Your task to perform on an android device: Do I have any events this weekend? Image 0: 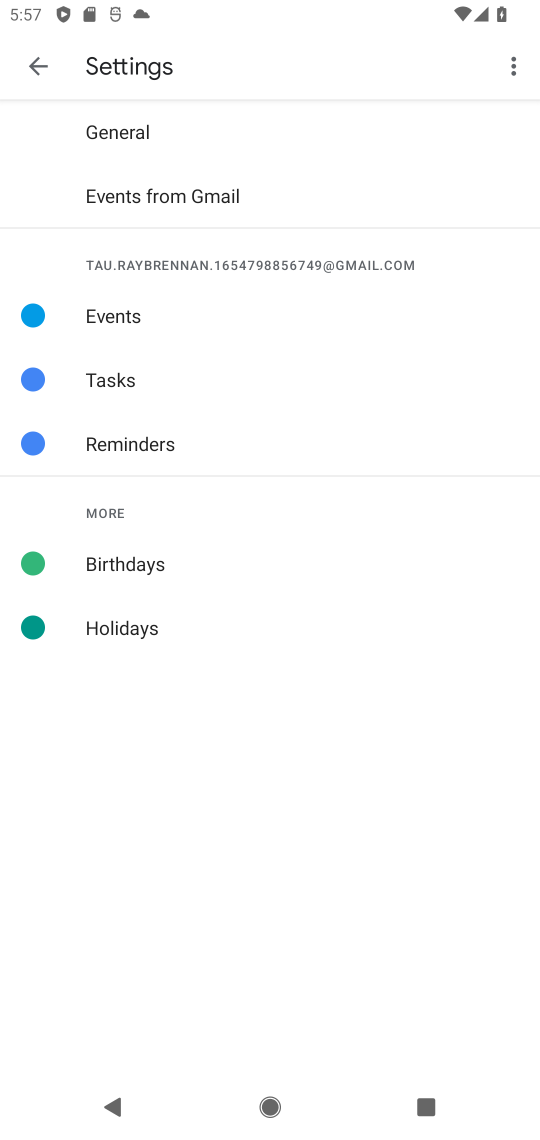
Step 0: press home button
Your task to perform on an android device: Do I have any events this weekend? Image 1: 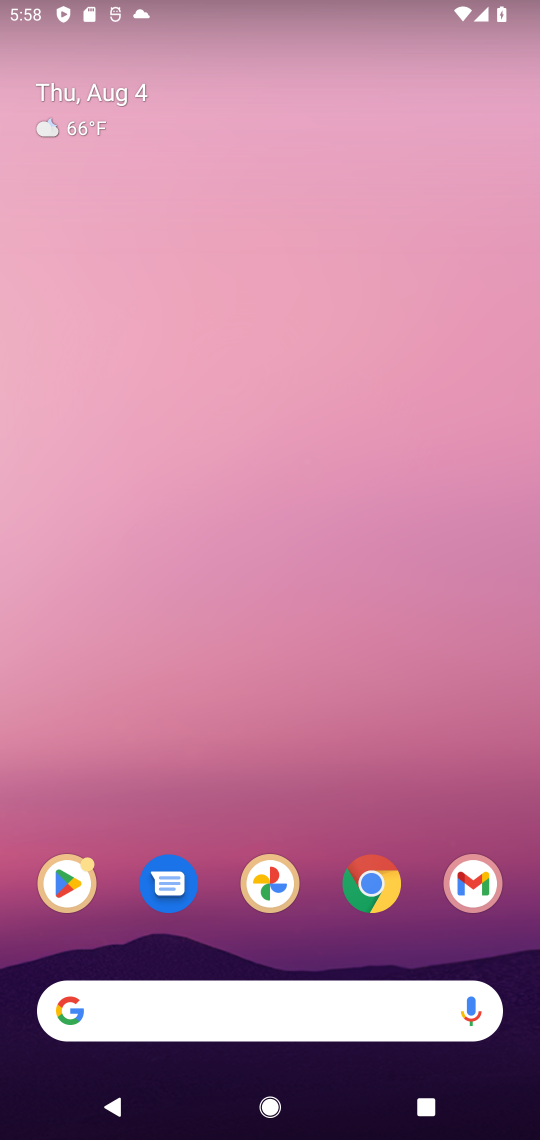
Step 1: drag from (299, 781) to (292, 512)
Your task to perform on an android device: Do I have any events this weekend? Image 2: 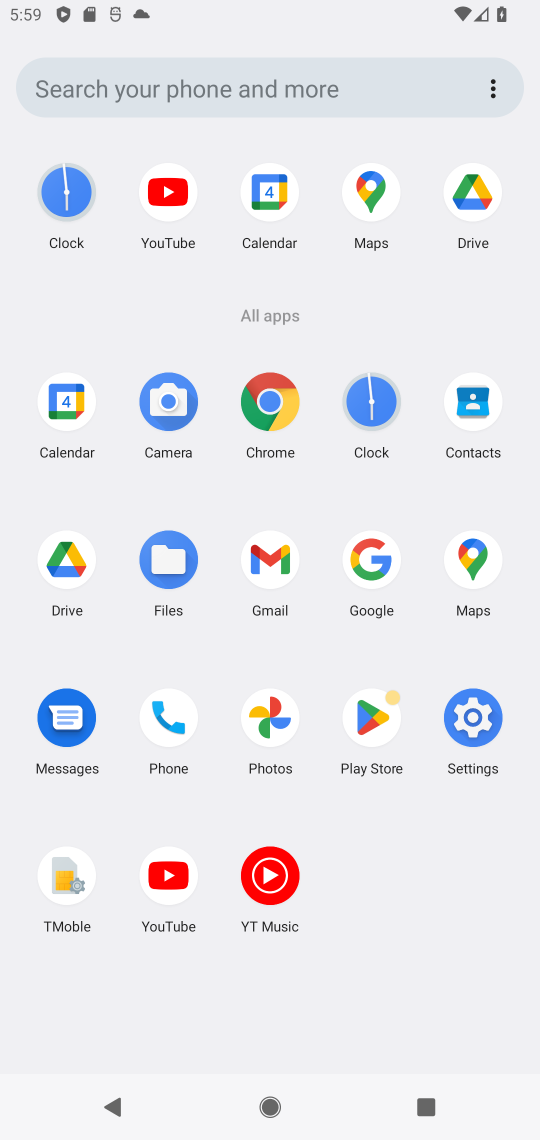
Step 2: click (67, 414)
Your task to perform on an android device: Do I have any events this weekend? Image 3: 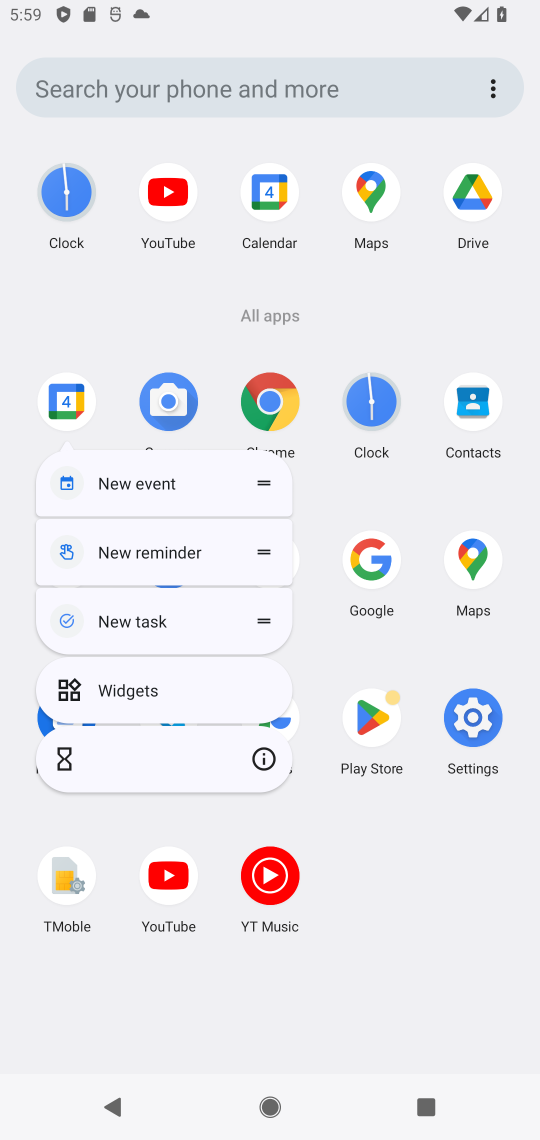
Step 3: click (67, 414)
Your task to perform on an android device: Do I have any events this weekend? Image 4: 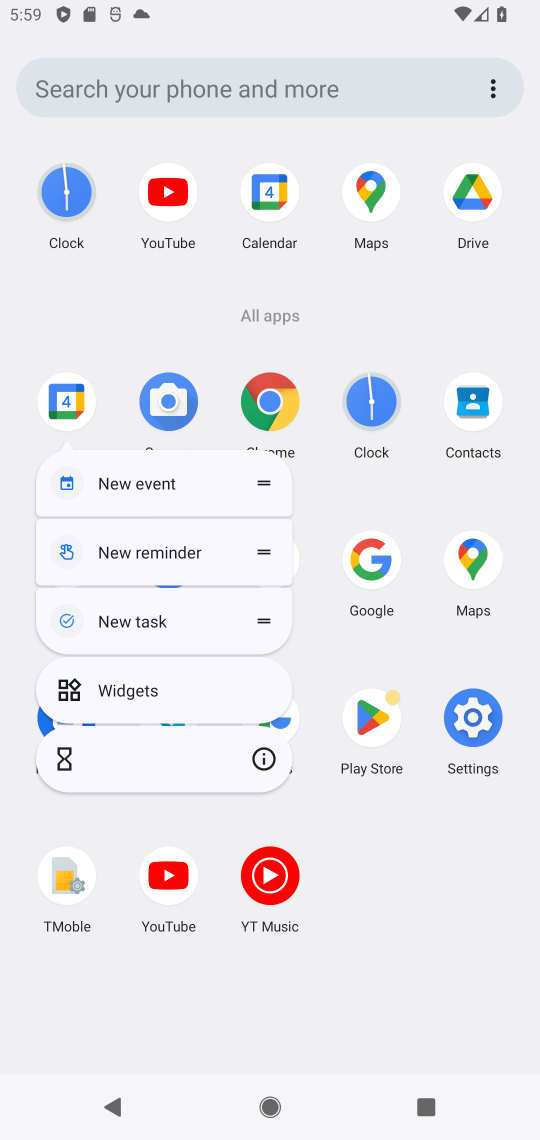
Step 4: click (67, 414)
Your task to perform on an android device: Do I have any events this weekend? Image 5: 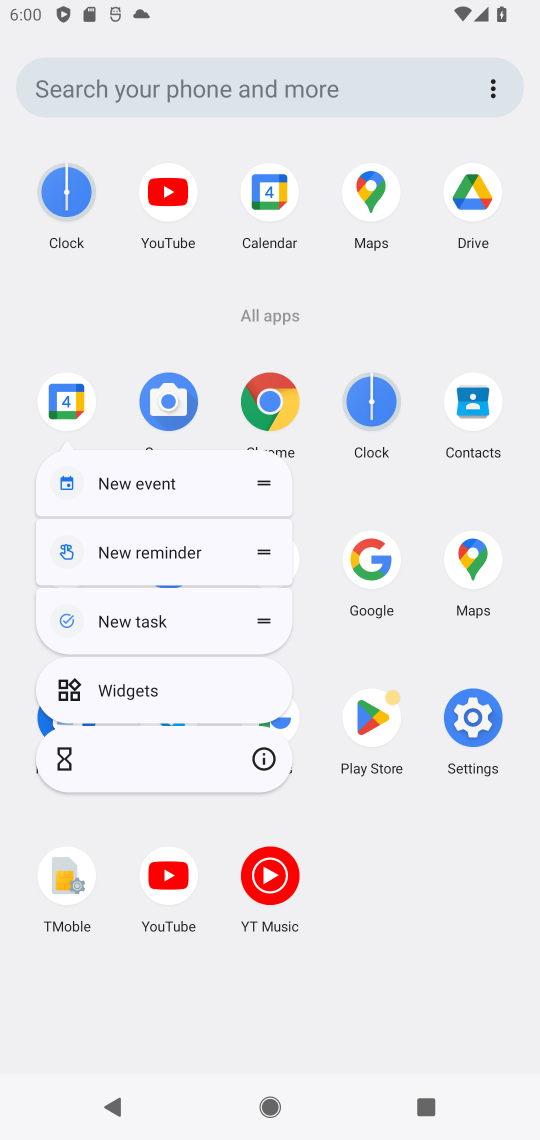
Step 5: click (69, 409)
Your task to perform on an android device: Do I have any events this weekend? Image 6: 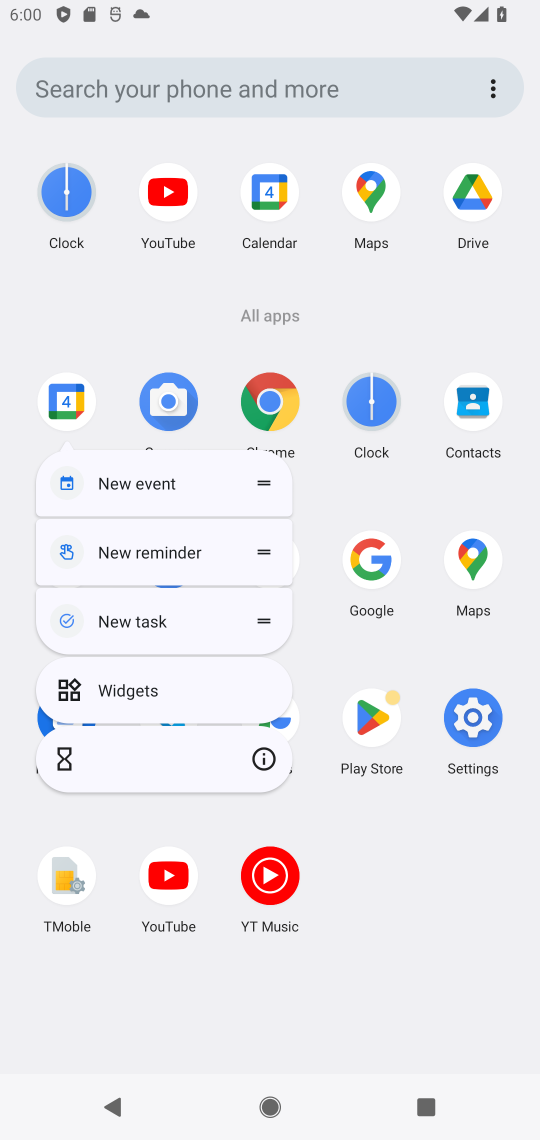
Step 6: click (69, 409)
Your task to perform on an android device: Do I have any events this weekend? Image 7: 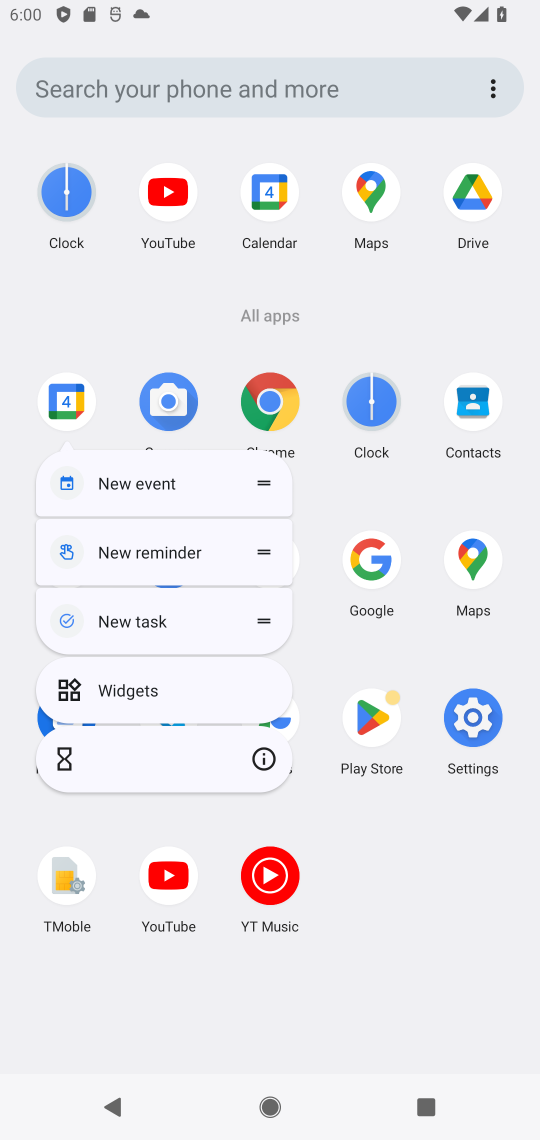
Step 7: click (65, 414)
Your task to perform on an android device: Do I have any events this weekend? Image 8: 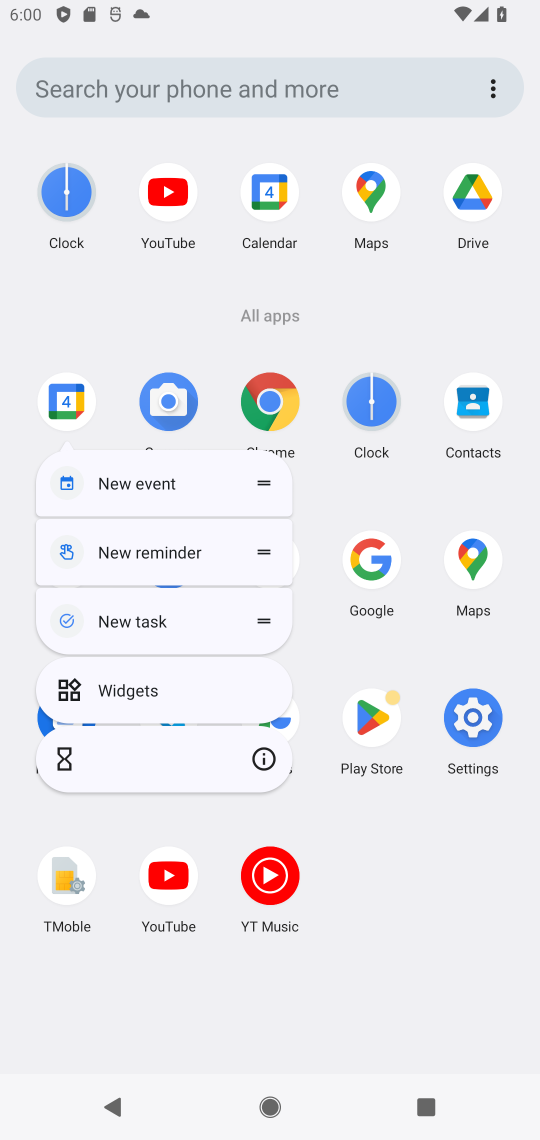
Step 8: click (92, 437)
Your task to perform on an android device: Do I have any events this weekend? Image 9: 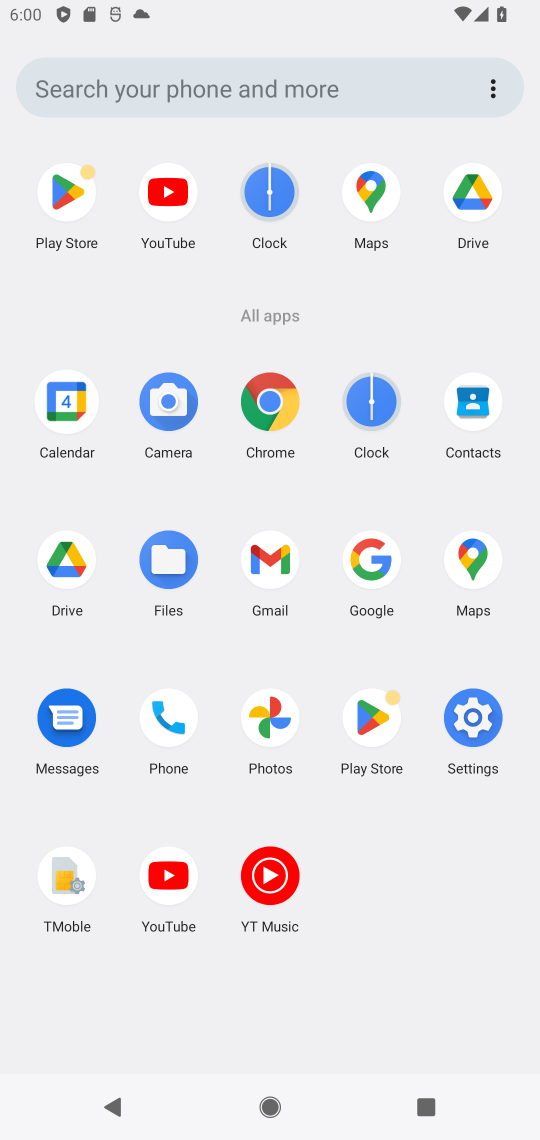
Step 9: click (71, 406)
Your task to perform on an android device: Do I have any events this weekend? Image 10: 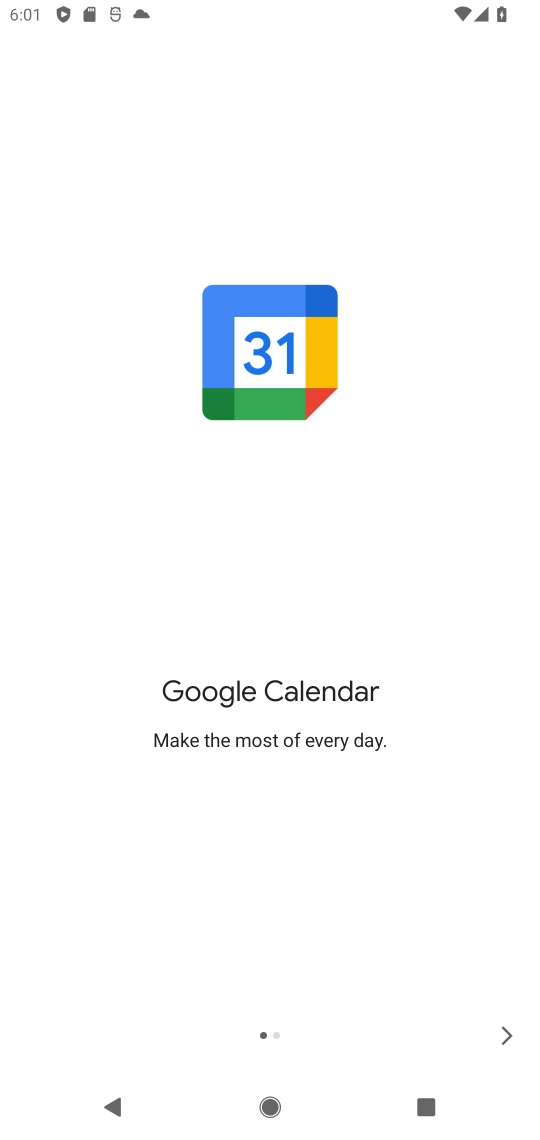
Step 10: click (495, 1030)
Your task to perform on an android device: Do I have any events this weekend? Image 11: 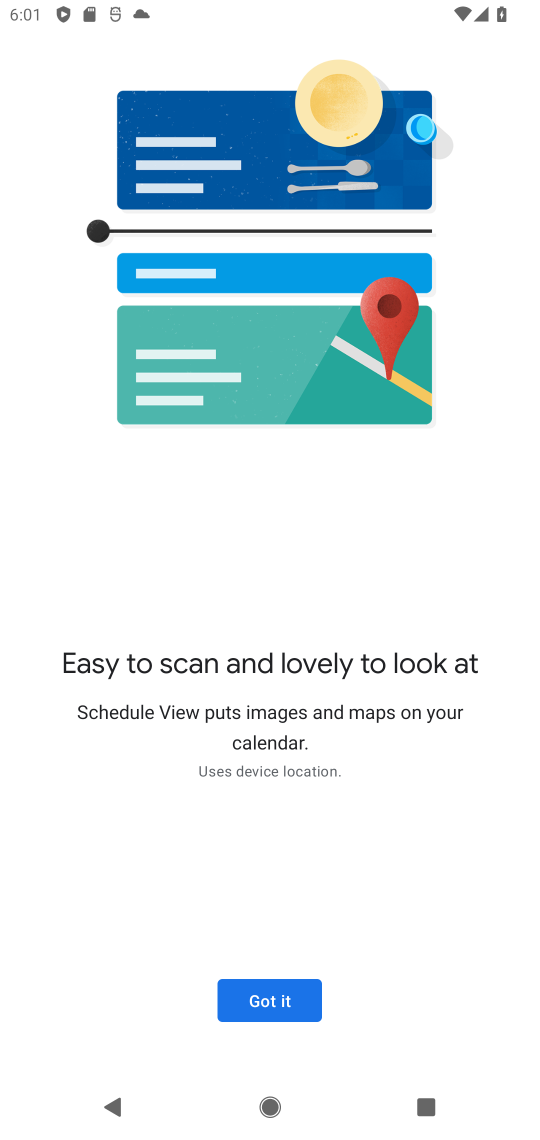
Step 11: click (495, 1030)
Your task to perform on an android device: Do I have any events this weekend? Image 12: 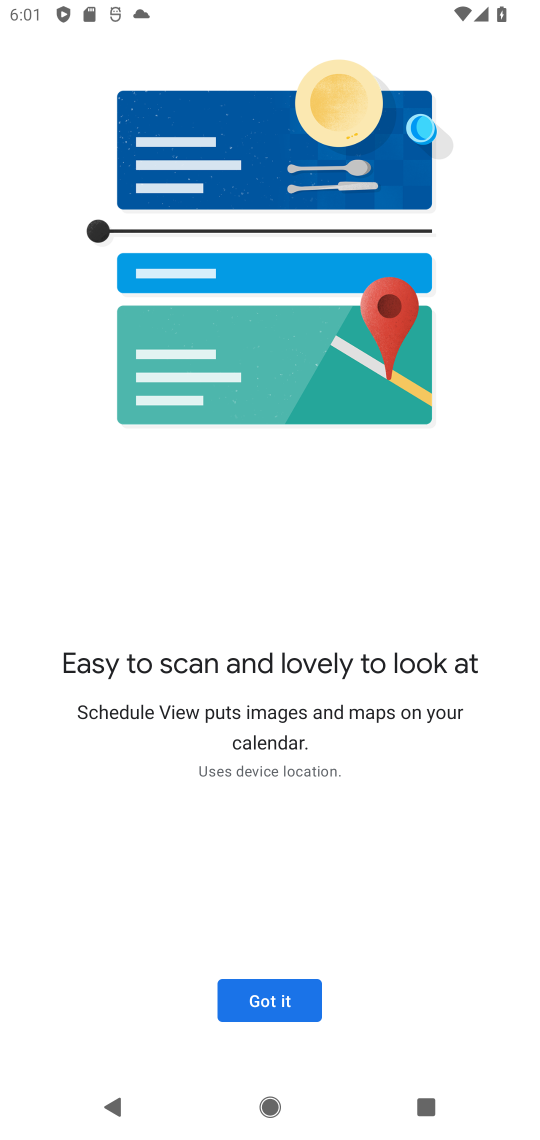
Step 12: click (264, 1005)
Your task to perform on an android device: Do I have any events this weekend? Image 13: 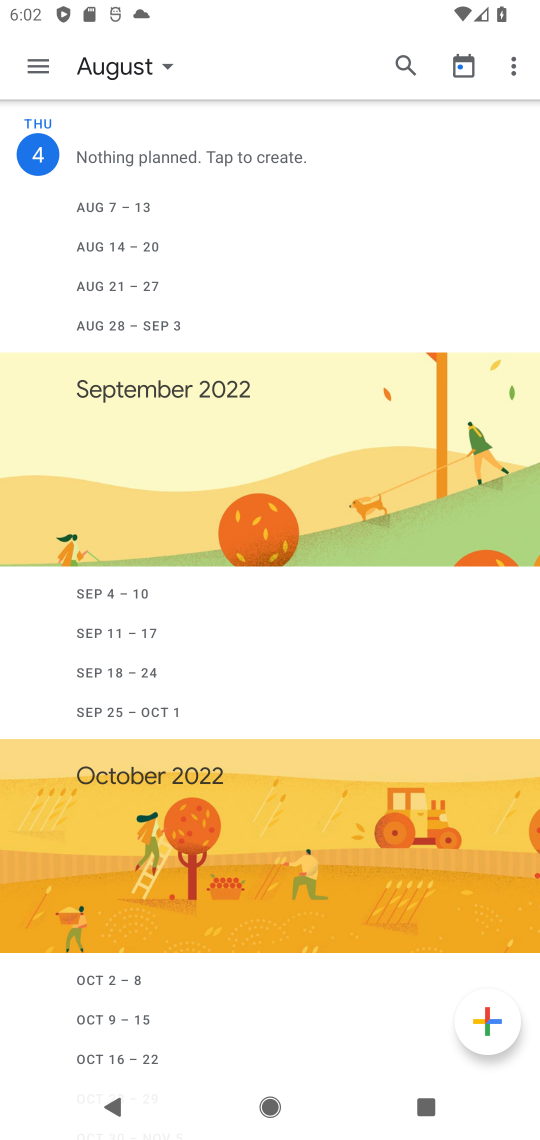
Step 13: task complete